Your task to perform on an android device: Turn on the flashlight Image 0: 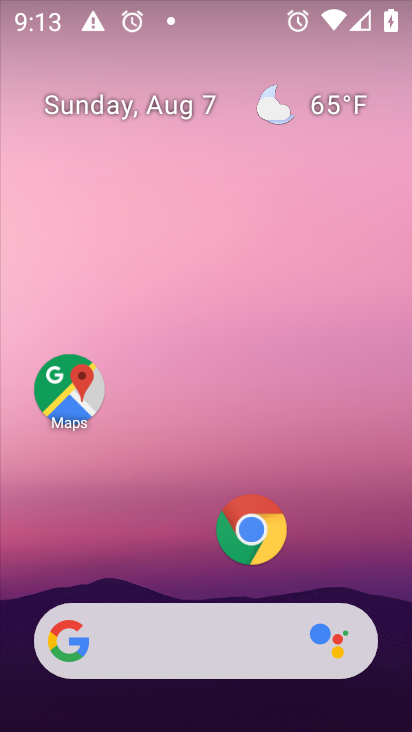
Step 0: click (252, 530)
Your task to perform on an android device: Turn on the flashlight Image 1: 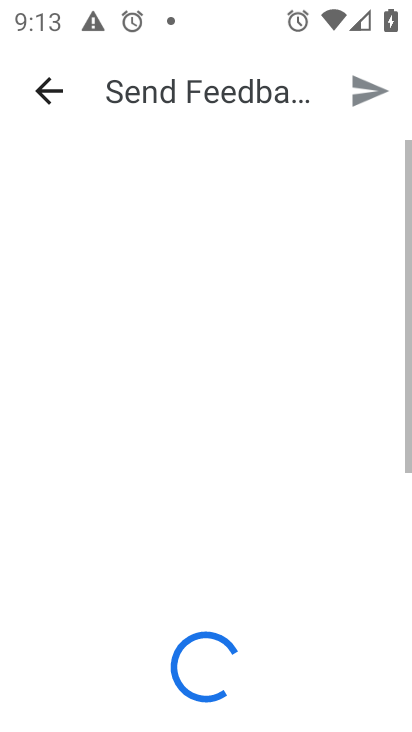
Step 1: press home button
Your task to perform on an android device: Turn on the flashlight Image 2: 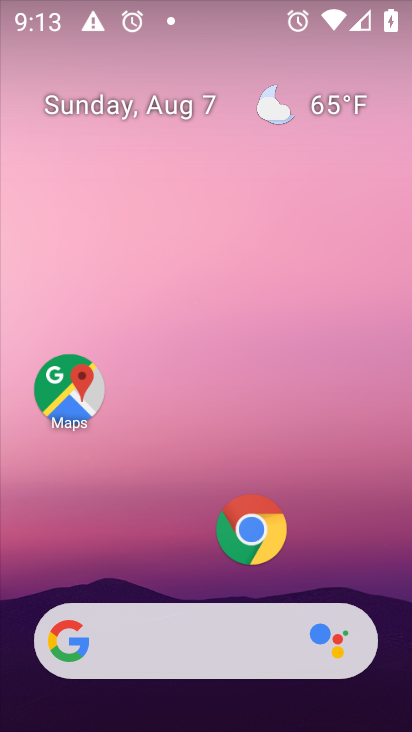
Step 2: drag from (161, 552) to (194, 17)
Your task to perform on an android device: Turn on the flashlight Image 3: 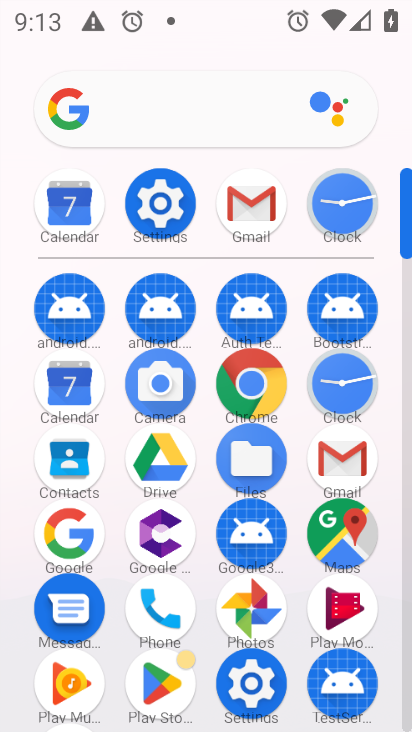
Step 3: click (153, 215)
Your task to perform on an android device: Turn on the flashlight Image 4: 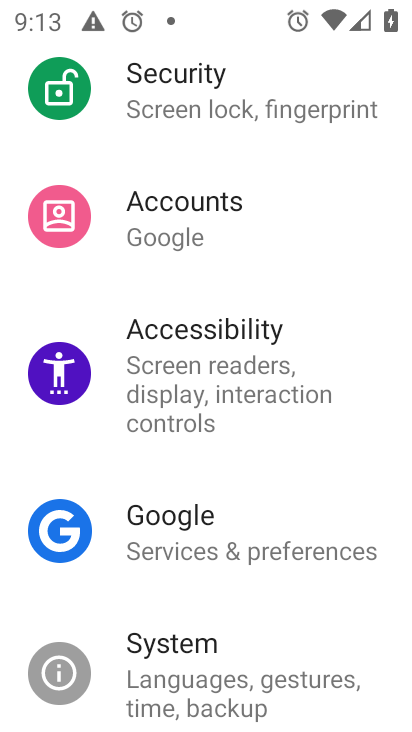
Step 4: drag from (201, 225) to (186, 522)
Your task to perform on an android device: Turn on the flashlight Image 5: 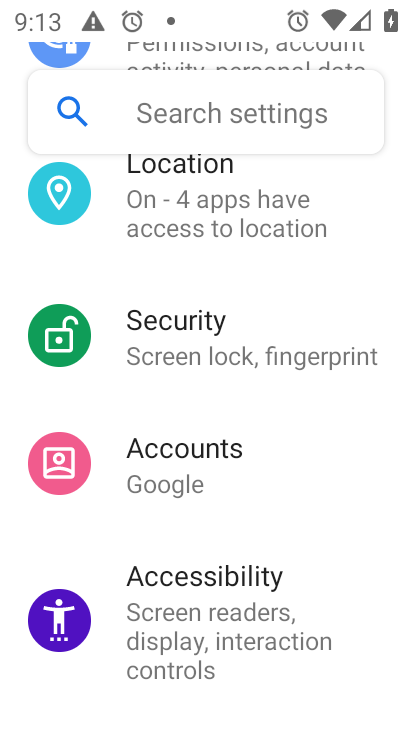
Step 5: click (251, 120)
Your task to perform on an android device: Turn on the flashlight Image 6: 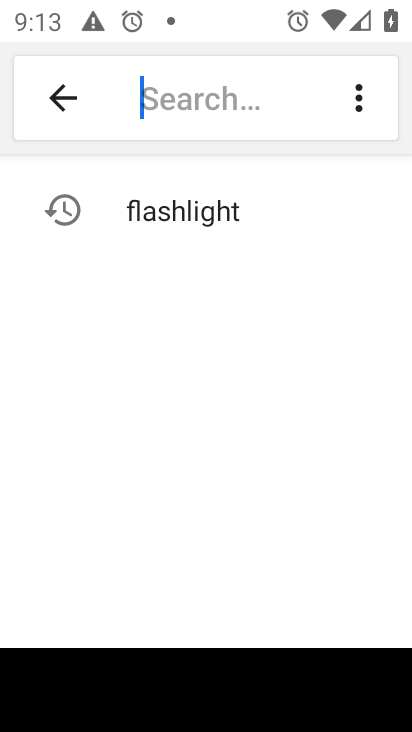
Step 6: click (188, 213)
Your task to perform on an android device: Turn on the flashlight Image 7: 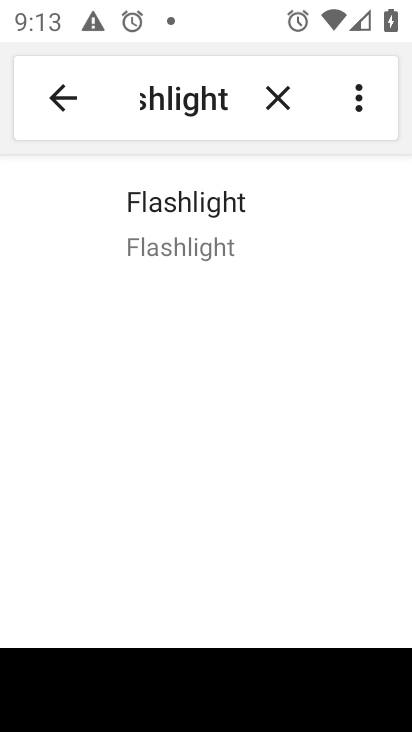
Step 7: click (158, 245)
Your task to perform on an android device: Turn on the flashlight Image 8: 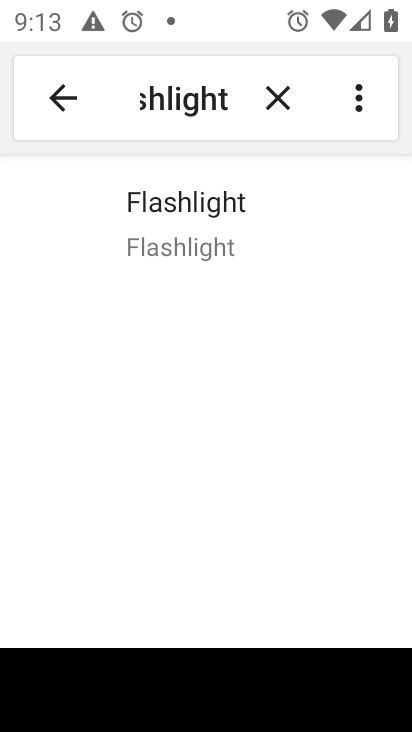
Step 8: click (161, 237)
Your task to perform on an android device: Turn on the flashlight Image 9: 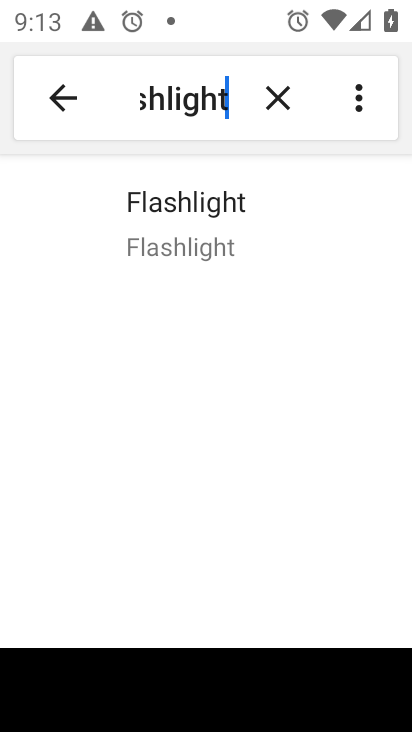
Step 9: task complete